Your task to perform on an android device: Go to privacy settings Image 0: 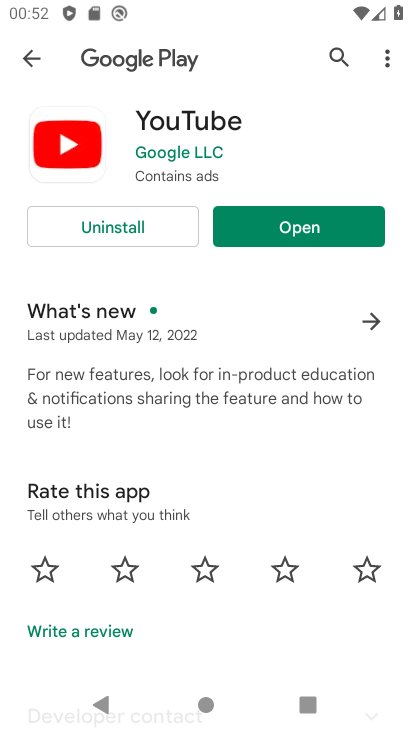
Step 0: press home button
Your task to perform on an android device: Go to privacy settings Image 1: 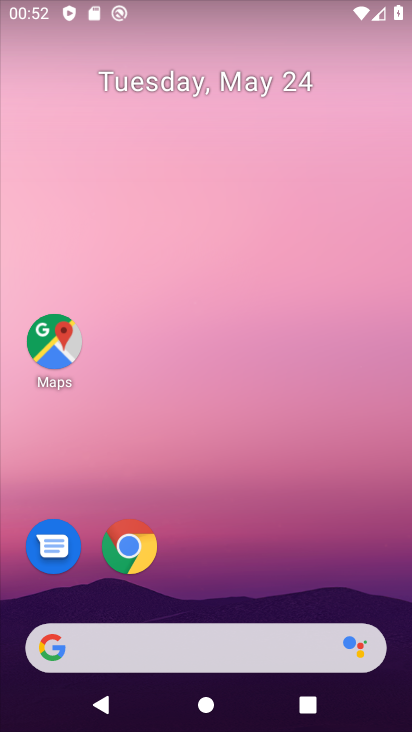
Step 1: drag from (302, 592) to (265, 52)
Your task to perform on an android device: Go to privacy settings Image 2: 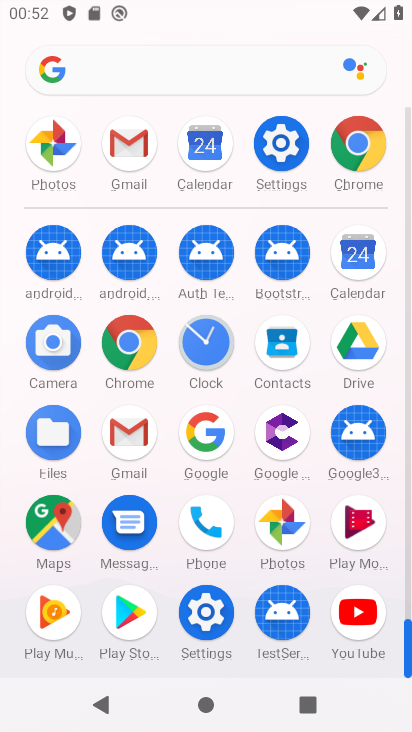
Step 2: click (287, 148)
Your task to perform on an android device: Go to privacy settings Image 3: 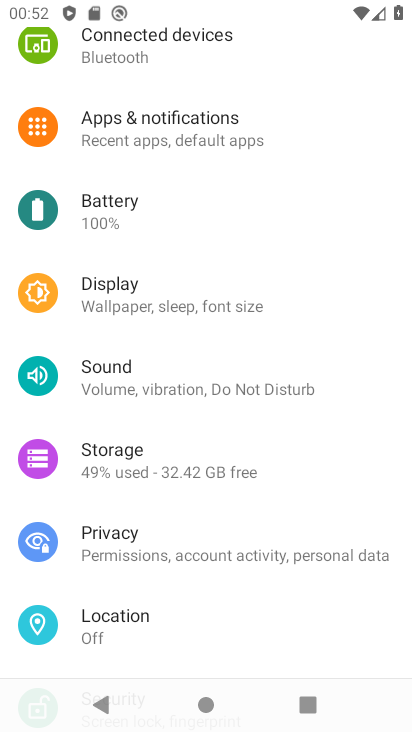
Step 3: click (172, 546)
Your task to perform on an android device: Go to privacy settings Image 4: 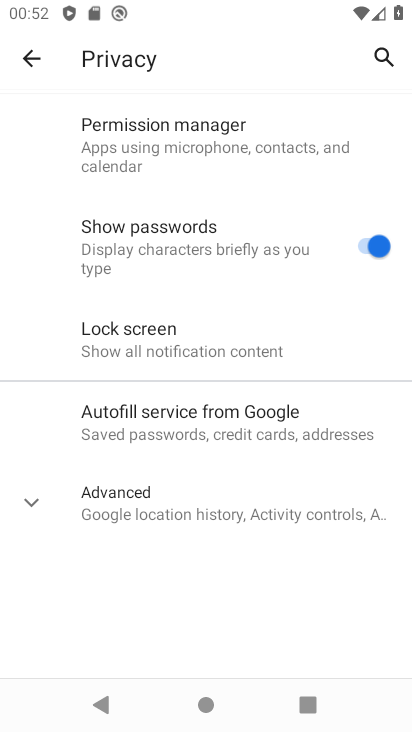
Step 4: task complete